Your task to perform on an android device: Go to Yahoo.com Image 0: 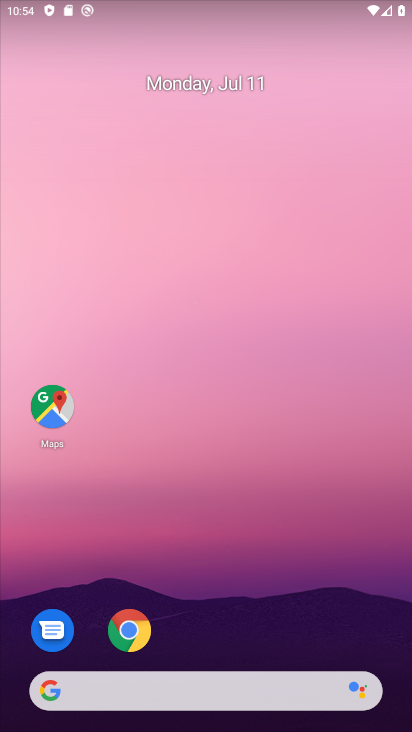
Step 0: drag from (265, 632) to (198, 156)
Your task to perform on an android device: Go to Yahoo.com Image 1: 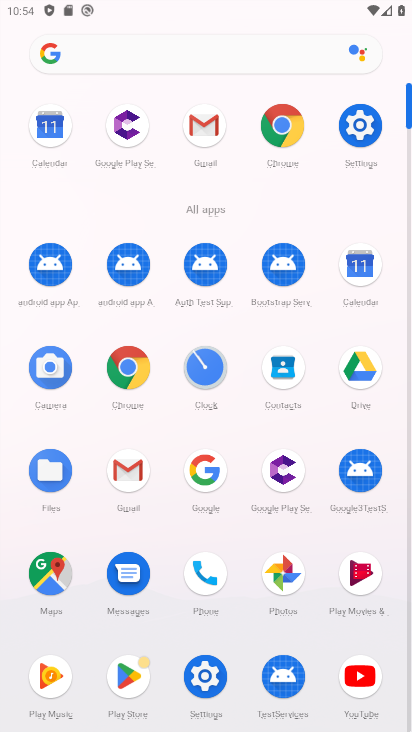
Step 1: click (276, 130)
Your task to perform on an android device: Go to Yahoo.com Image 2: 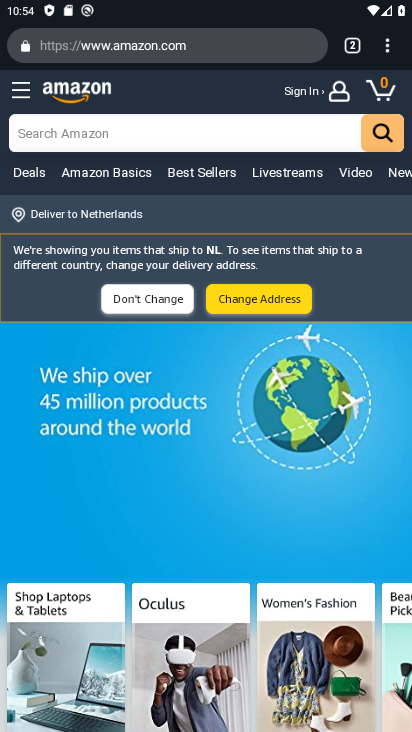
Step 2: click (356, 51)
Your task to perform on an android device: Go to Yahoo.com Image 3: 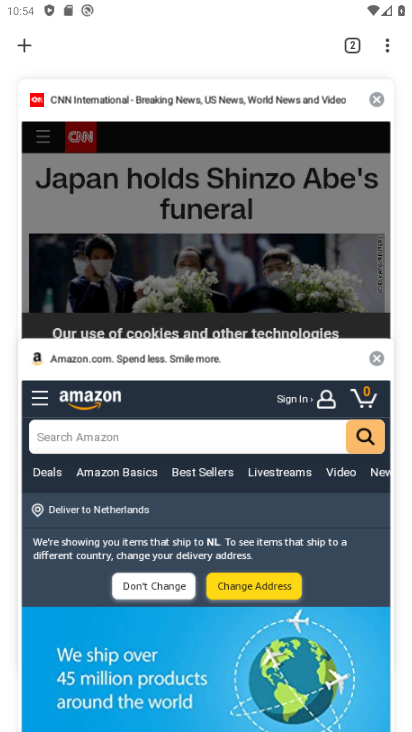
Step 3: click (30, 51)
Your task to perform on an android device: Go to Yahoo.com Image 4: 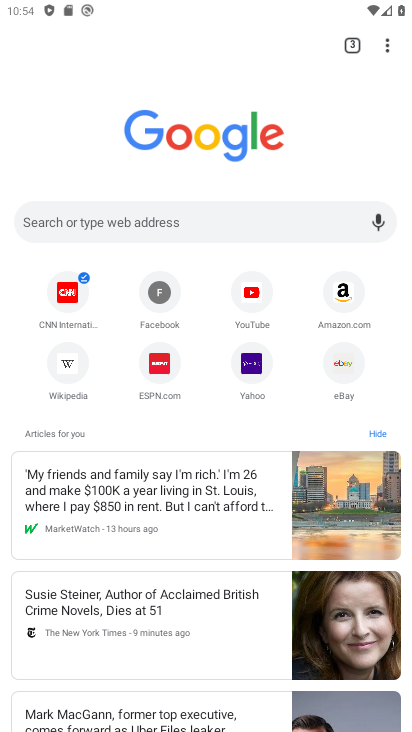
Step 4: click (247, 366)
Your task to perform on an android device: Go to Yahoo.com Image 5: 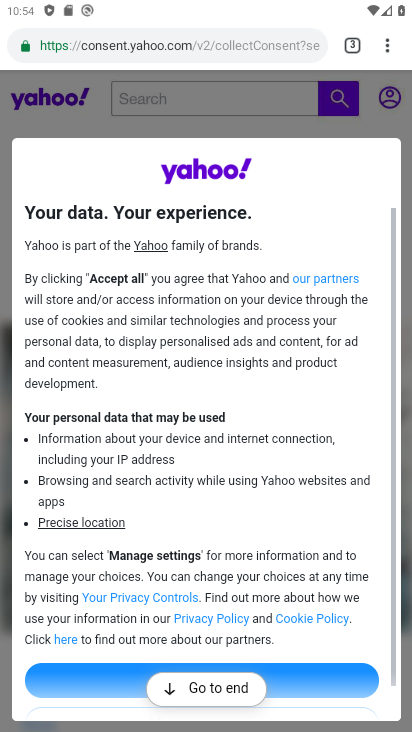
Step 5: task complete